Your task to perform on an android device: Go to CNN.com Image 0: 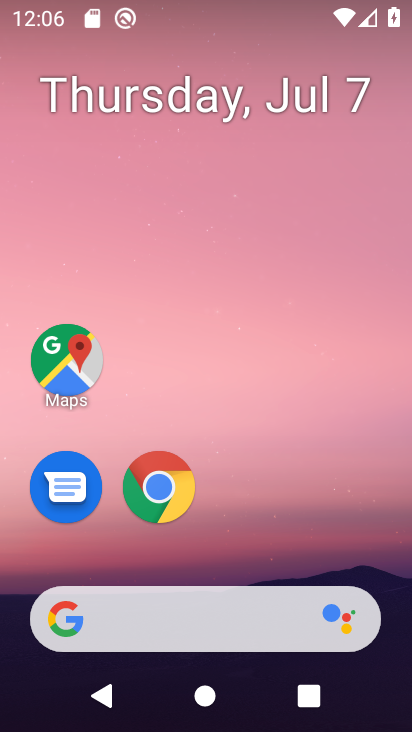
Step 0: drag from (367, 519) to (362, 143)
Your task to perform on an android device: Go to CNN.com Image 1: 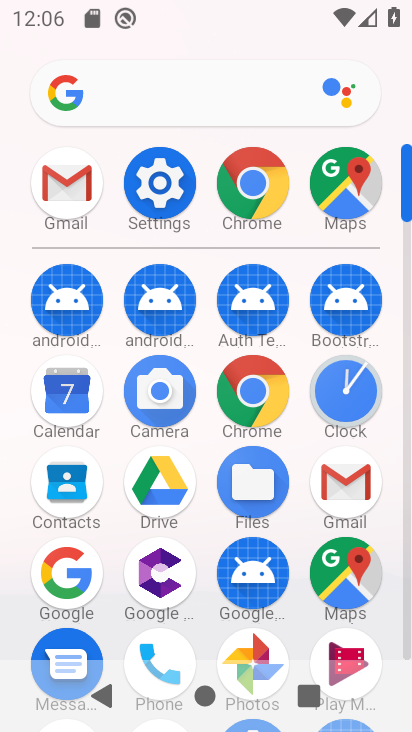
Step 1: click (256, 384)
Your task to perform on an android device: Go to CNN.com Image 2: 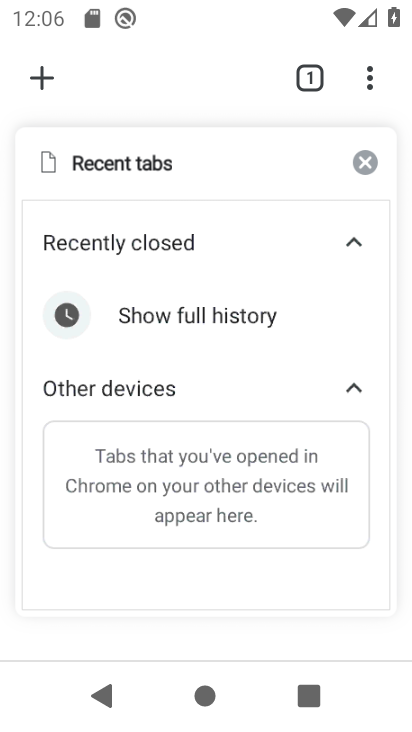
Step 2: press back button
Your task to perform on an android device: Go to CNN.com Image 3: 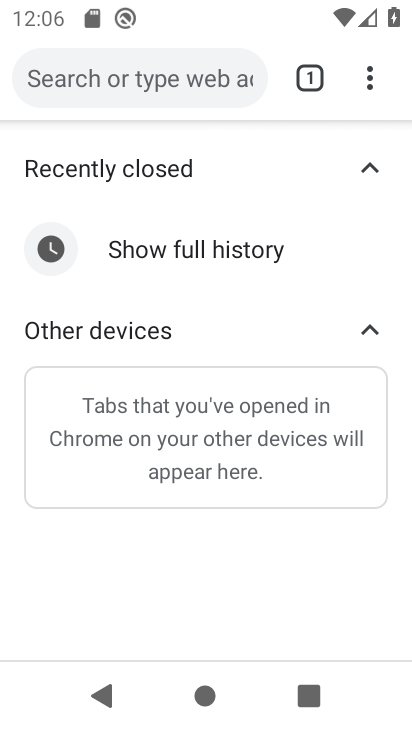
Step 3: click (171, 85)
Your task to perform on an android device: Go to CNN.com Image 4: 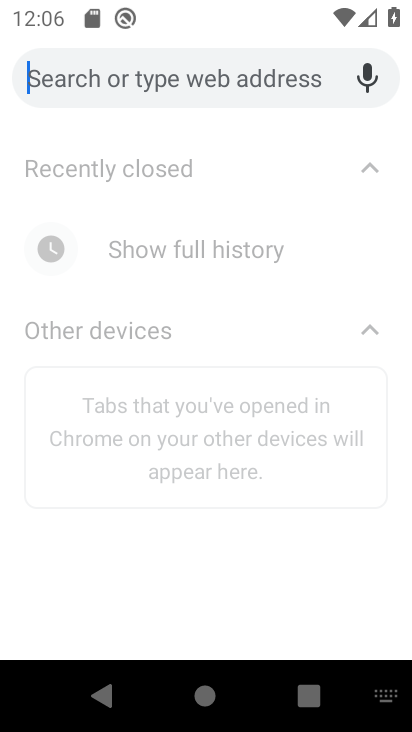
Step 4: type "cnn.com"
Your task to perform on an android device: Go to CNN.com Image 5: 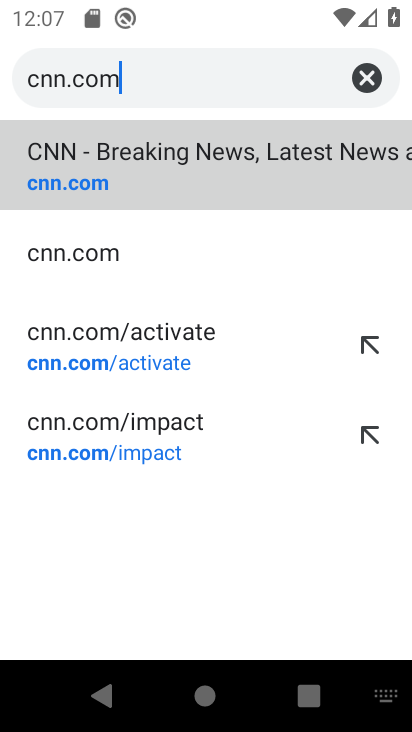
Step 5: click (183, 173)
Your task to perform on an android device: Go to CNN.com Image 6: 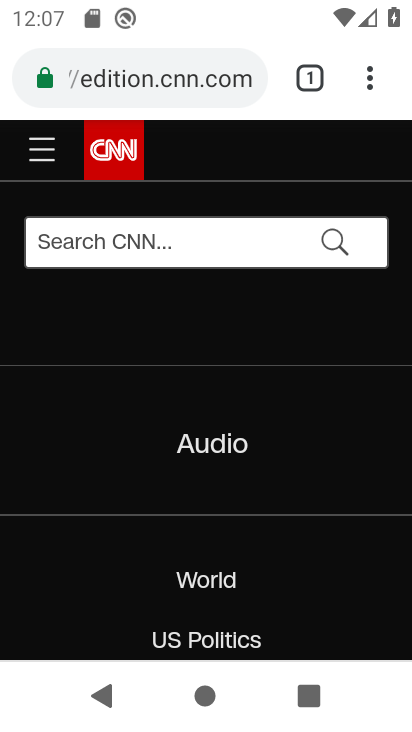
Step 6: task complete